Your task to perform on an android device: Open Maps and search for coffee Image 0: 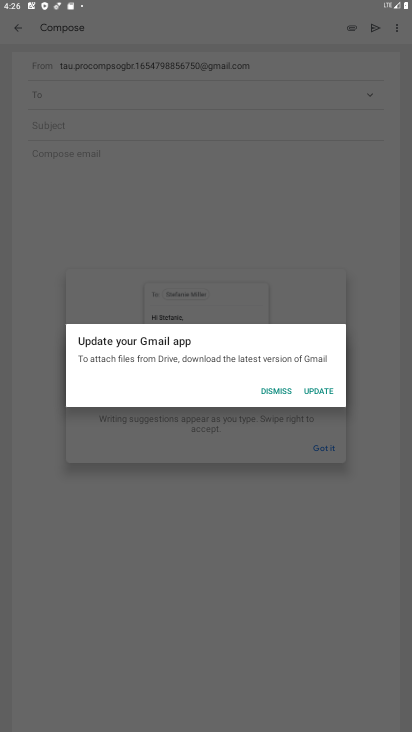
Step 0: press home button
Your task to perform on an android device: Open Maps and search for coffee Image 1: 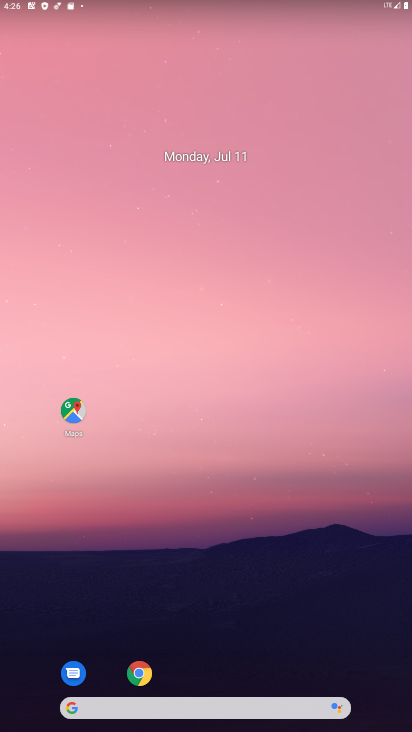
Step 1: drag from (330, 111) to (262, 5)
Your task to perform on an android device: Open Maps and search for coffee Image 2: 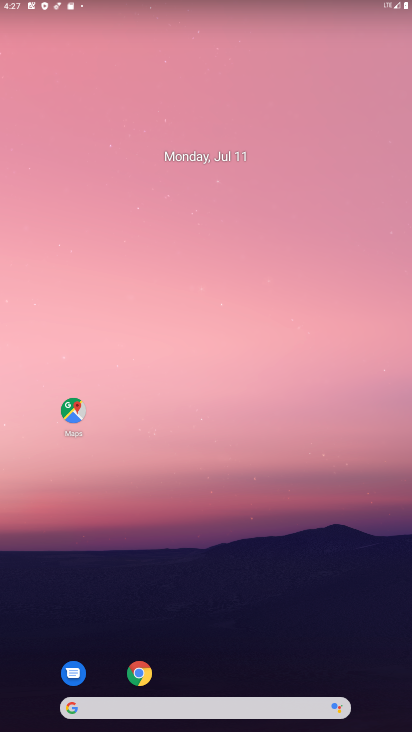
Step 2: drag from (305, 584) to (305, 69)
Your task to perform on an android device: Open Maps and search for coffee Image 3: 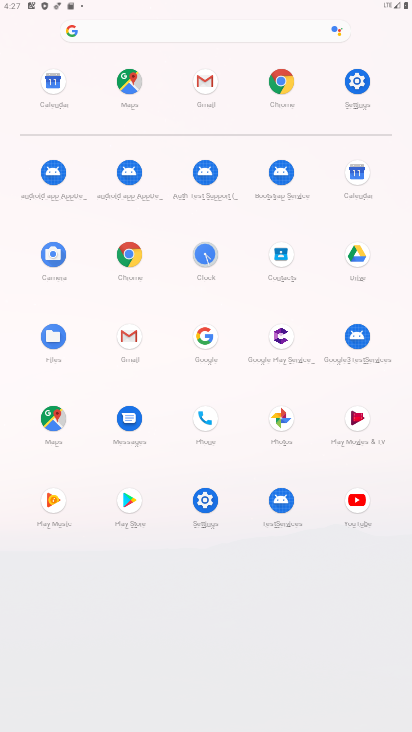
Step 3: click (128, 76)
Your task to perform on an android device: Open Maps and search for coffee Image 4: 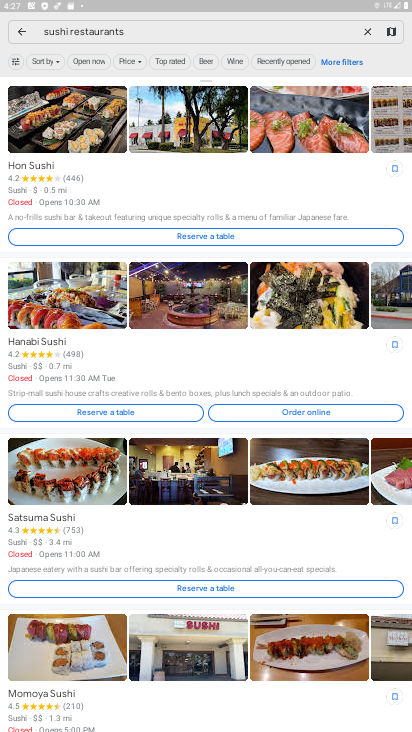
Step 4: click (252, 30)
Your task to perform on an android device: Open Maps and search for coffee Image 5: 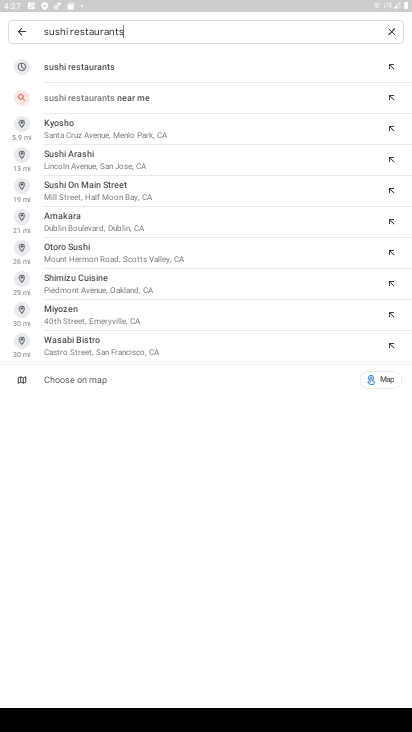
Step 5: click (396, 28)
Your task to perform on an android device: Open Maps and search for coffee Image 6: 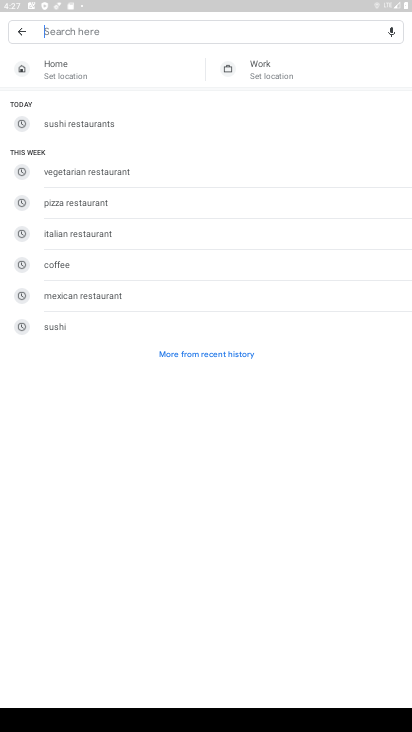
Step 6: type "coffee"
Your task to perform on an android device: Open Maps and search for coffee Image 7: 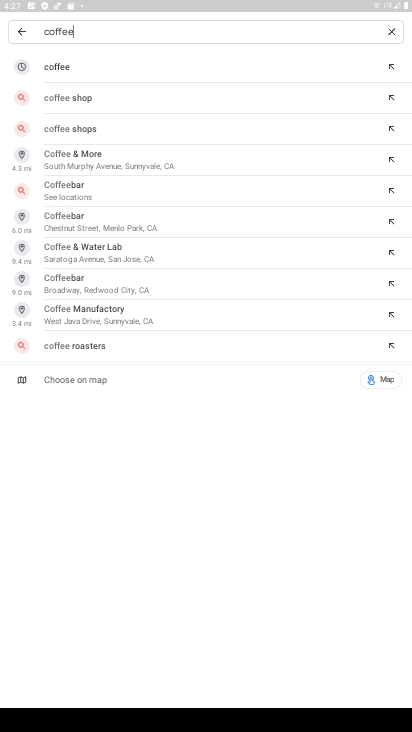
Step 7: click (64, 63)
Your task to perform on an android device: Open Maps and search for coffee Image 8: 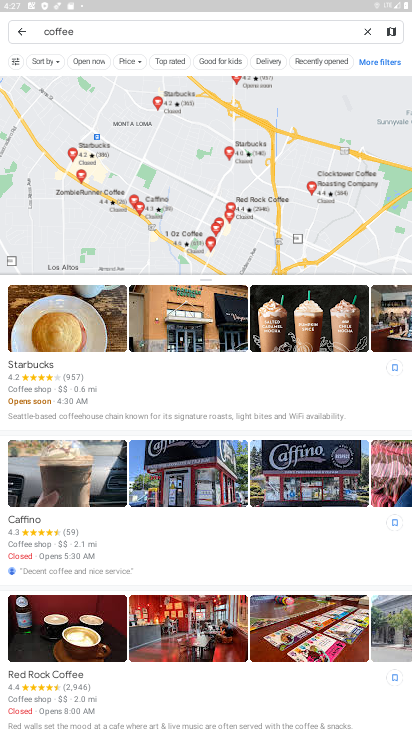
Step 8: task complete